Your task to perform on an android device: see creations saved in the google photos Image 0: 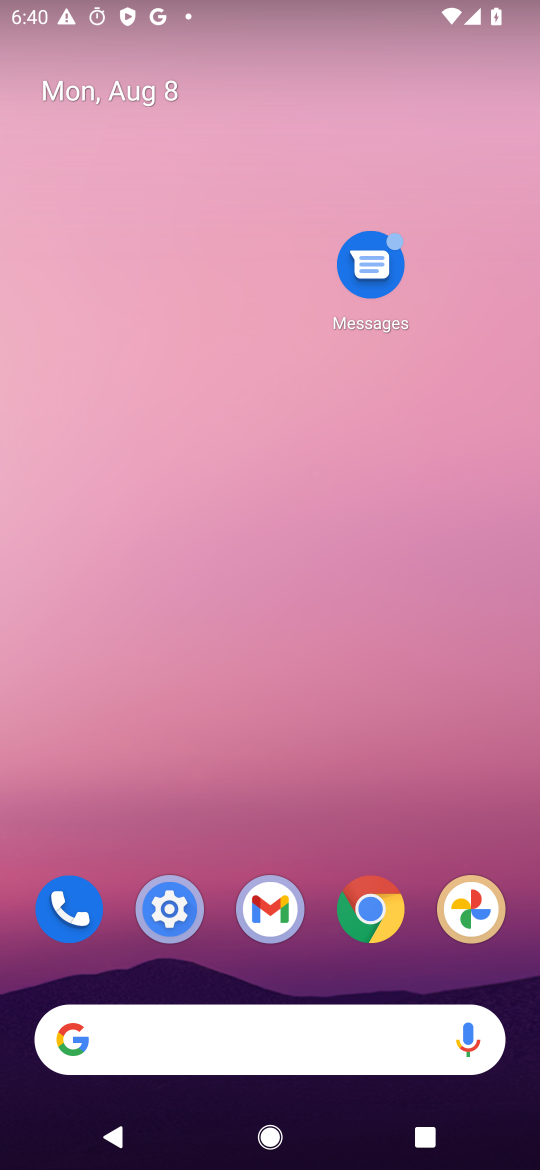
Step 0: drag from (279, 839) to (348, 210)
Your task to perform on an android device: see creations saved in the google photos Image 1: 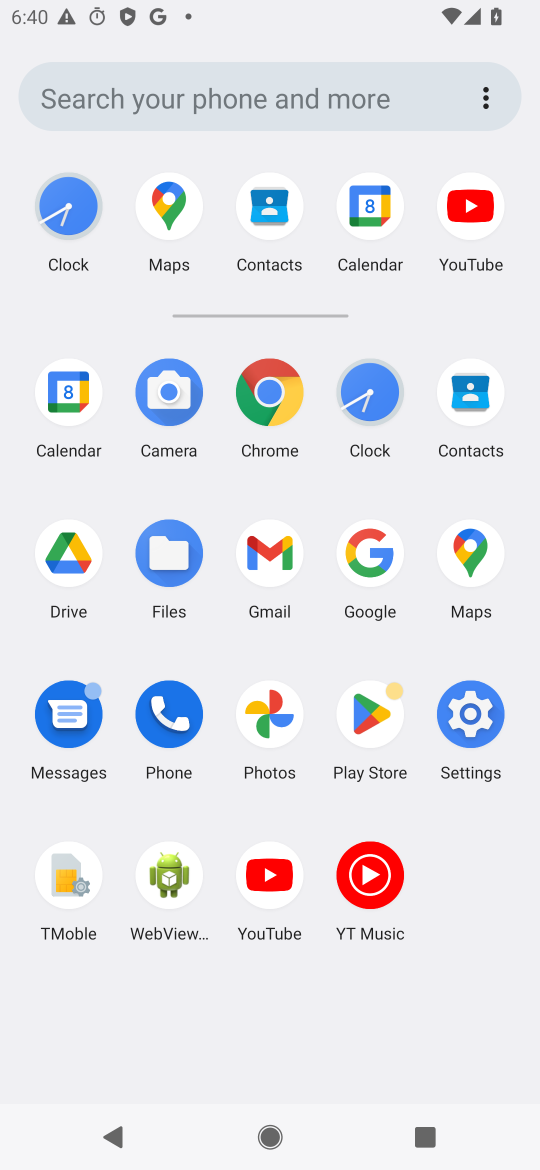
Step 1: click (268, 721)
Your task to perform on an android device: see creations saved in the google photos Image 2: 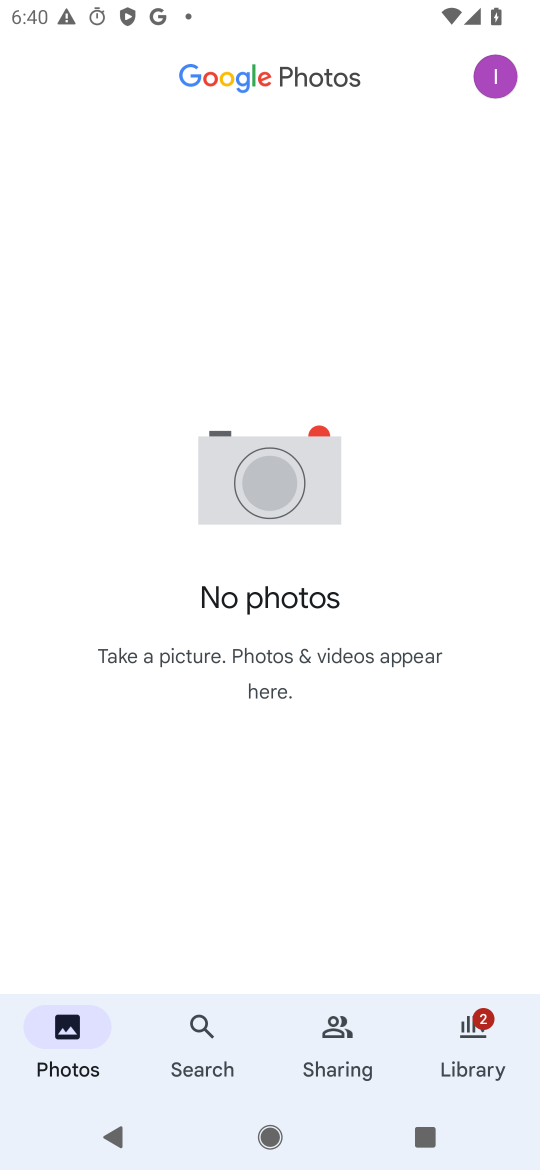
Step 2: click (200, 1029)
Your task to perform on an android device: see creations saved in the google photos Image 3: 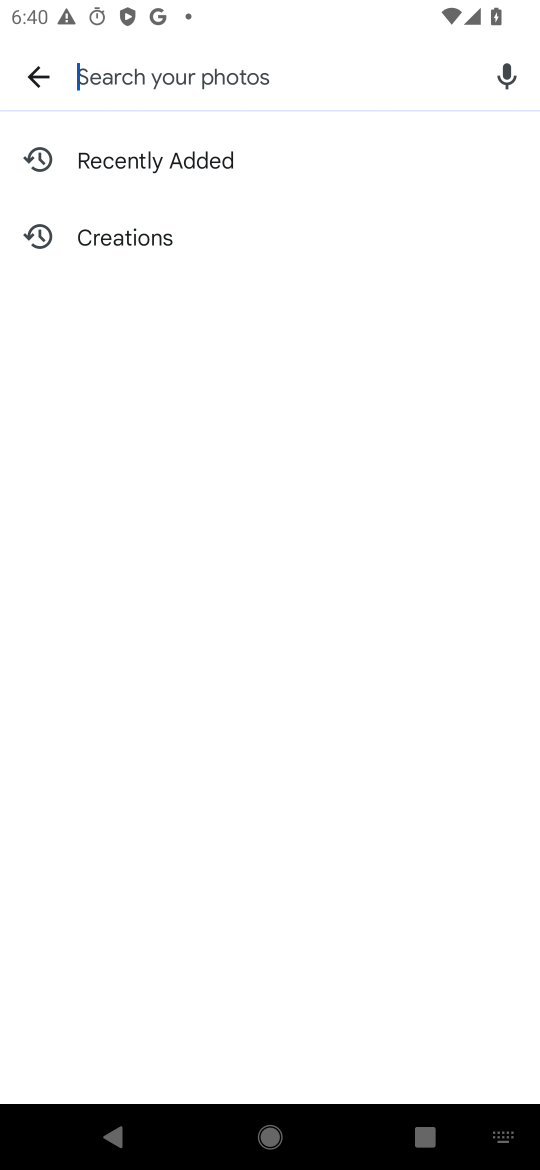
Step 3: click (113, 249)
Your task to perform on an android device: see creations saved in the google photos Image 4: 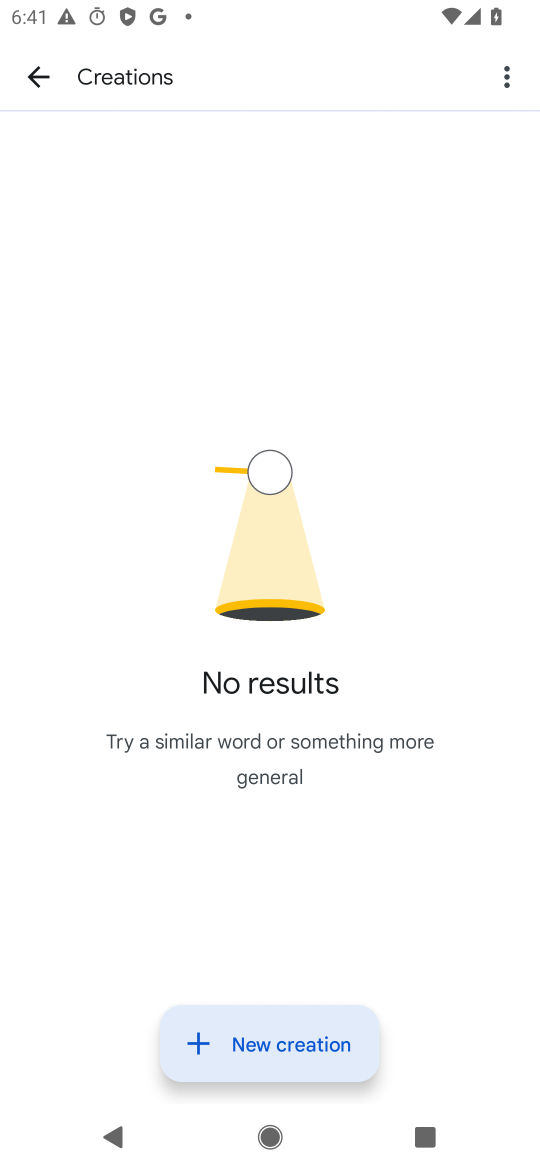
Step 4: task complete